Your task to perform on an android device: visit the assistant section in the google photos Image 0: 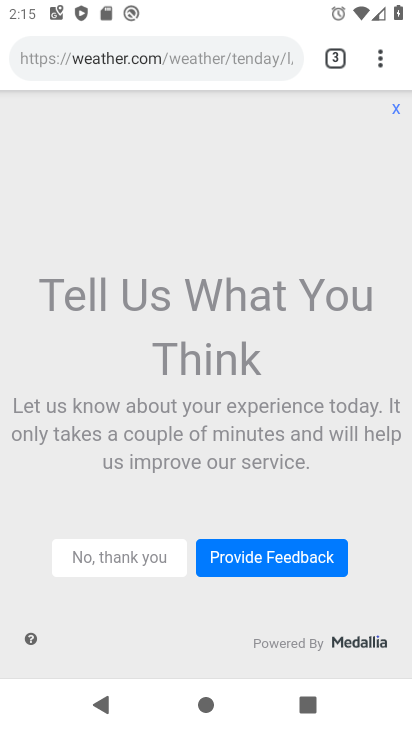
Step 0: press home button
Your task to perform on an android device: visit the assistant section in the google photos Image 1: 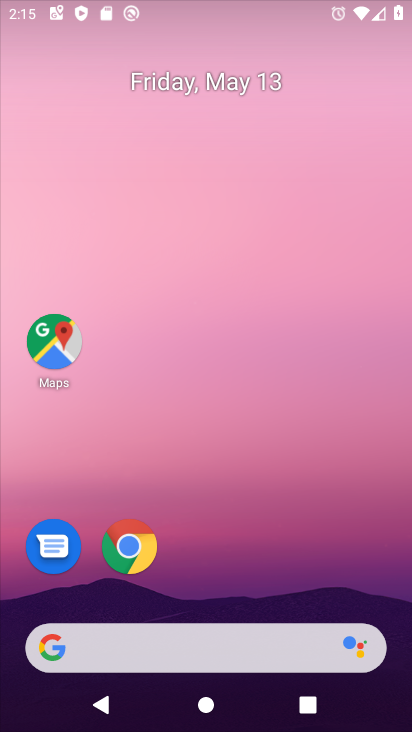
Step 1: drag from (327, 601) to (367, 177)
Your task to perform on an android device: visit the assistant section in the google photos Image 2: 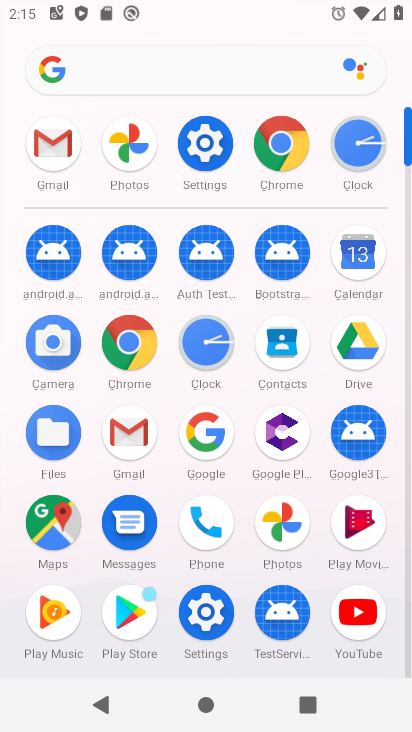
Step 2: click (272, 507)
Your task to perform on an android device: visit the assistant section in the google photos Image 3: 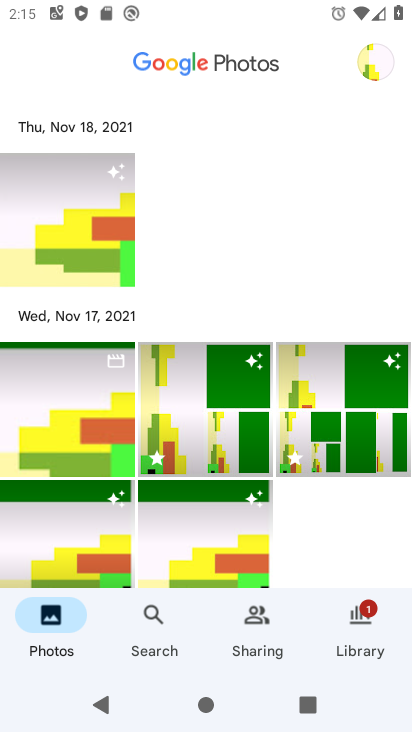
Step 3: click (378, 69)
Your task to perform on an android device: visit the assistant section in the google photos Image 4: 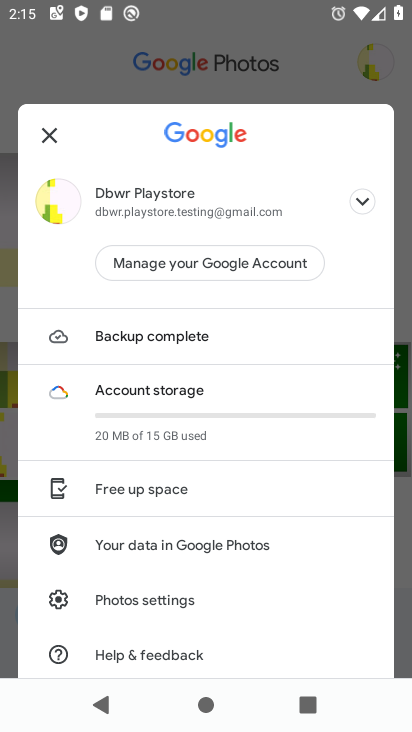
Step 4: drag from (222, 581) to (207, 425)
Your task to perform on an android device: visit the assistant section in the google photos Image 5: 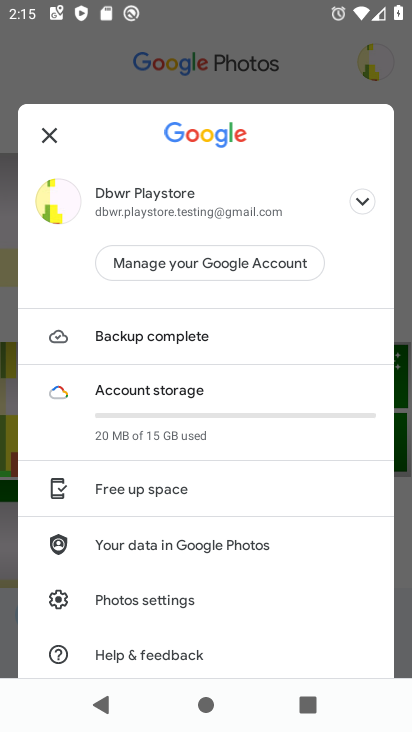
Step 5: click (51, 148)
Your task to perform on an android device: visit the assistant section in the google photos Image 6: 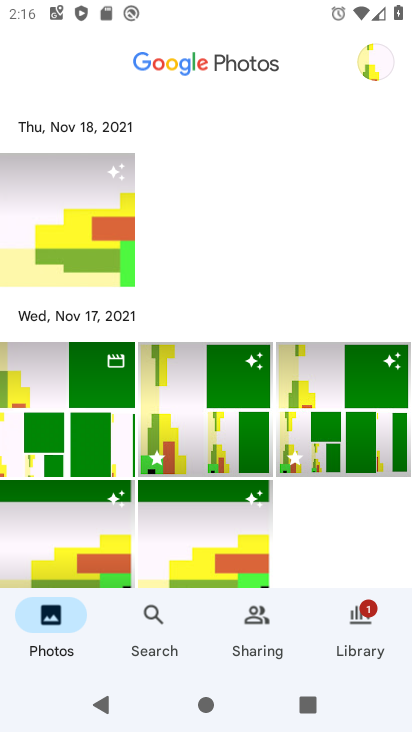
Step 6: click (386, 59)
Your task to perform on an android device: visit the assistant section in the google photos Image 7: 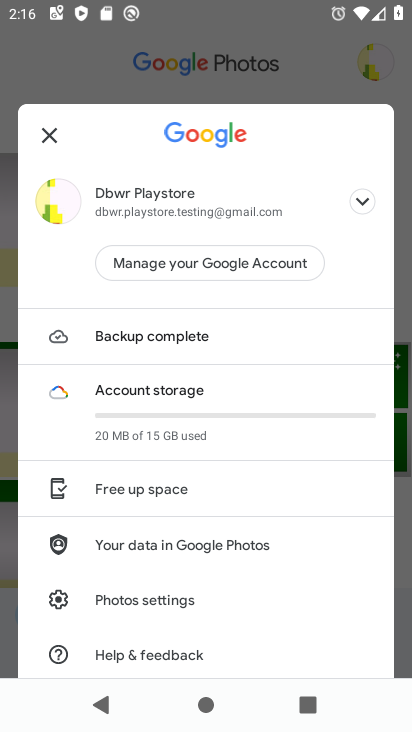
Step 7: task complete